Your task to perform on an android device: Go to eBay Image 0: 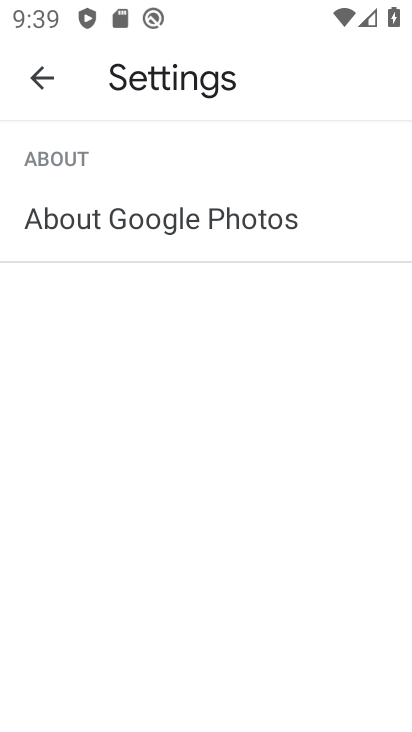
Step 0: press home button
Your task to perform on an android device: Go to eBay Image 1: 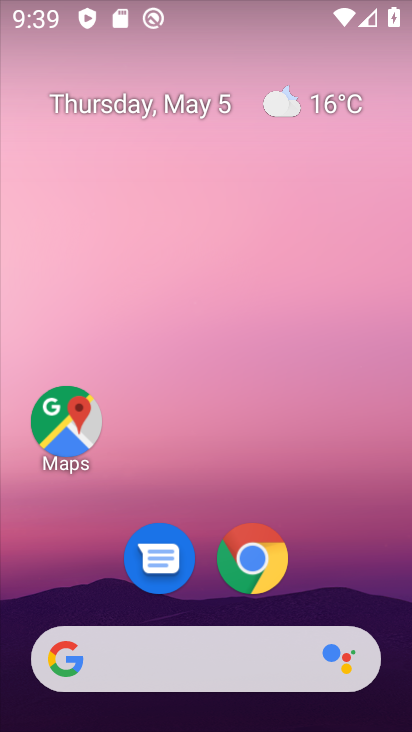
Step 1: click (253, 557)
Your task to perform on an android device: Go to eBay Image 2: 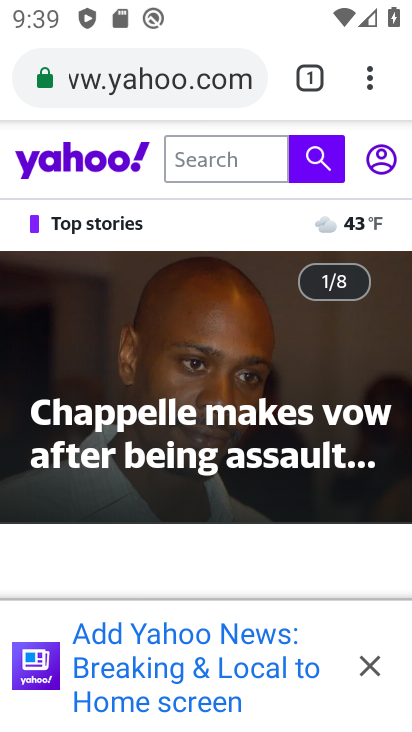
Step 2: click (311, 94)
Your task to perform on an android device: Go to eBay Image 3: 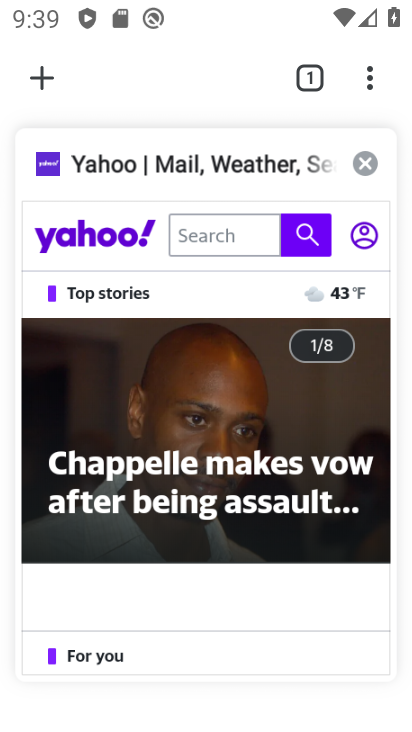
Step 3: click (40, 84)
Your task to perform on an android device: Go to eBay Image 4: 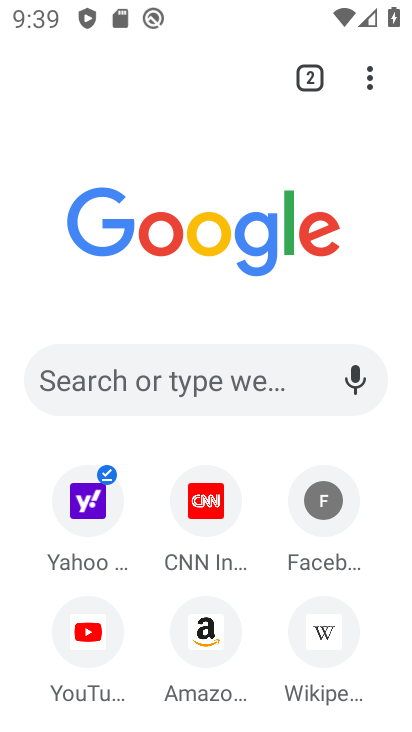
Step 4: drag from (375, 602) to (314, 248)
Your task to perform on an android device: Go to eBay Image 5: 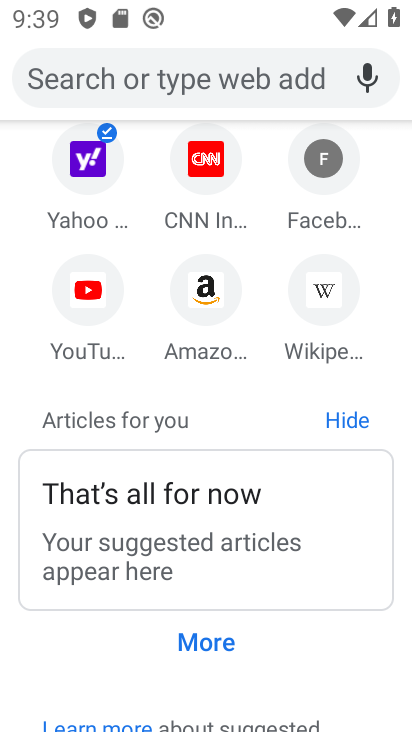
Step 5: drag from (387, 238) to (400, 509)
Your task to perform on an android device: Go to eBay Image 6: 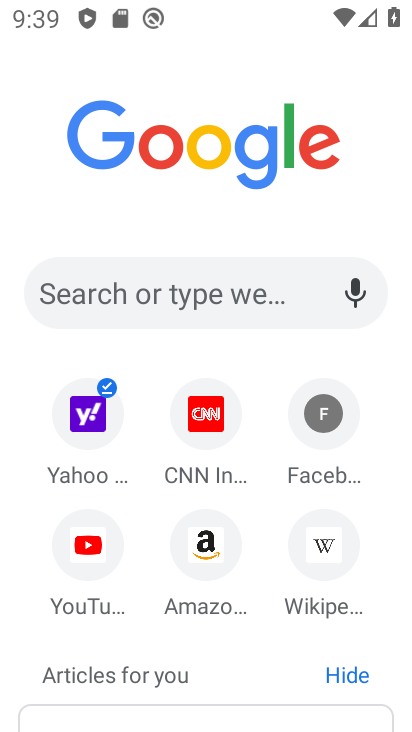
Step 6: click (128, 313)
Your task to perform on an android device: Go to eBay Image 7: 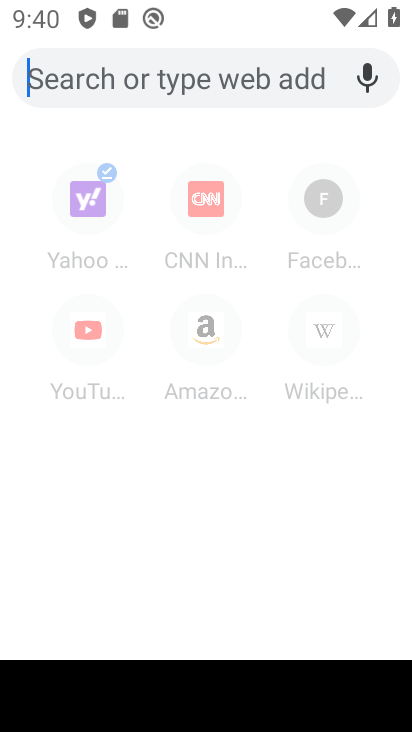
Step 7: type "eBay"
Your task to perform on an android device: Go to eBay Image 8: 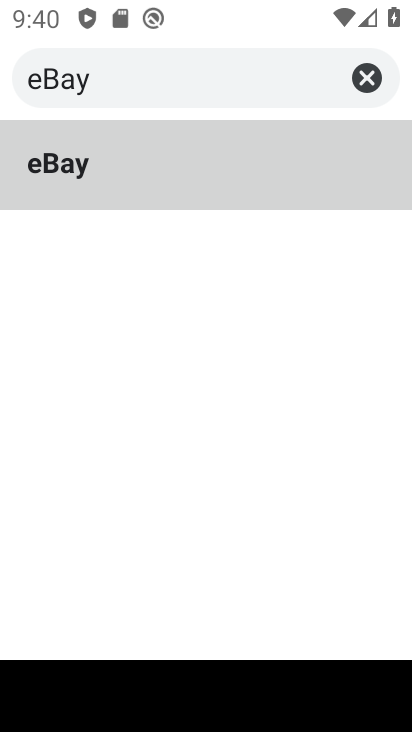
Step 8: click (215, 150)
Your task to perform on an android device: Go to eBay Image 9: 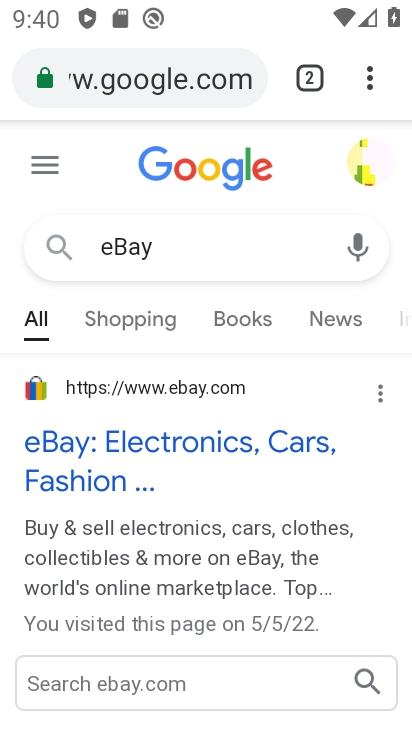
Step 9: click (135, 446)
Your task to perform on an android device: Go to eBay Image 10: 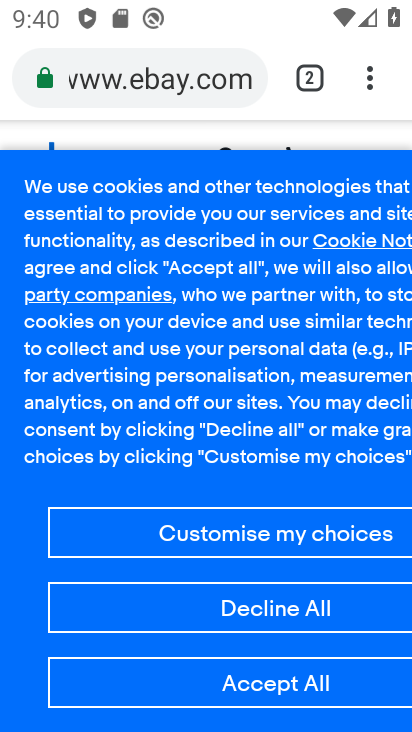
Step 10: task complete